Your task to perform on an android device: check data usage Image 0: 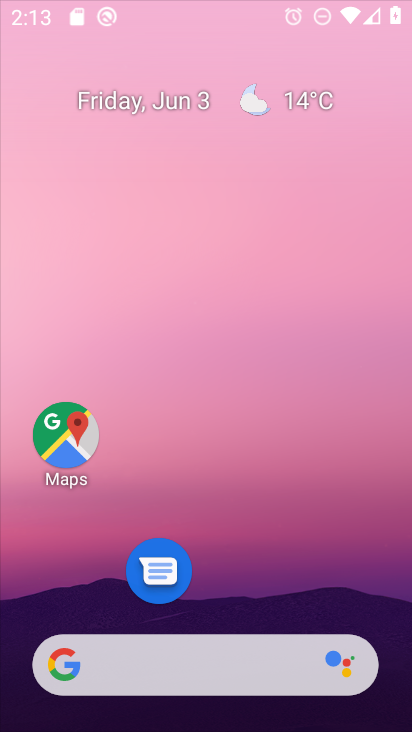
Step 0: drag from (311, 554) to (327, 74)
Your task to perform on an android device: check data usage Image 1: 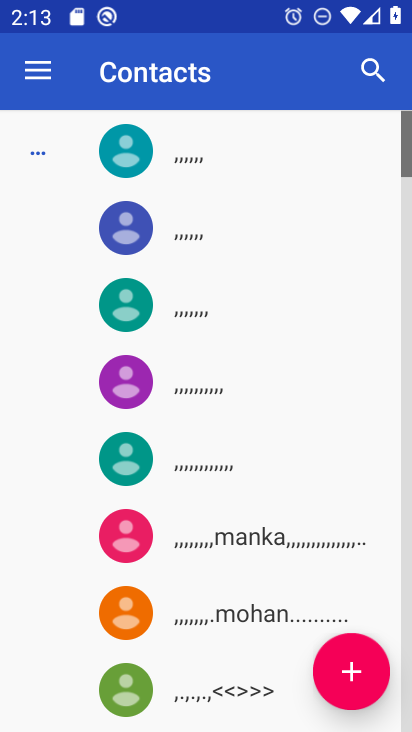
Step 1: press home button
Your task to perform on an android device: check data usage Image 2: 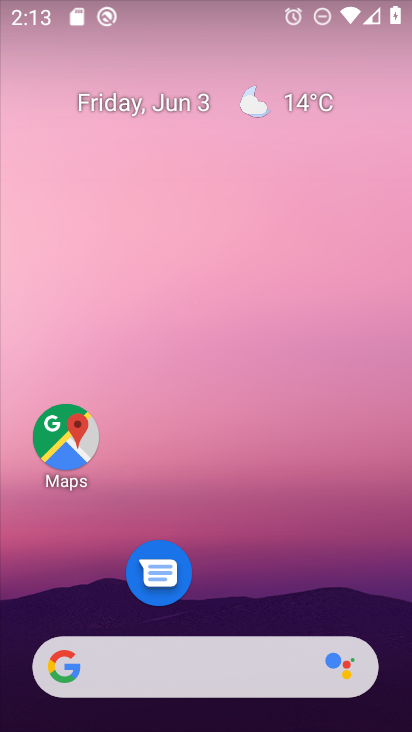
Step 2: drag from (324, 609) to (303, 80)
Your task to perform on an android device: check data usage Image 3: 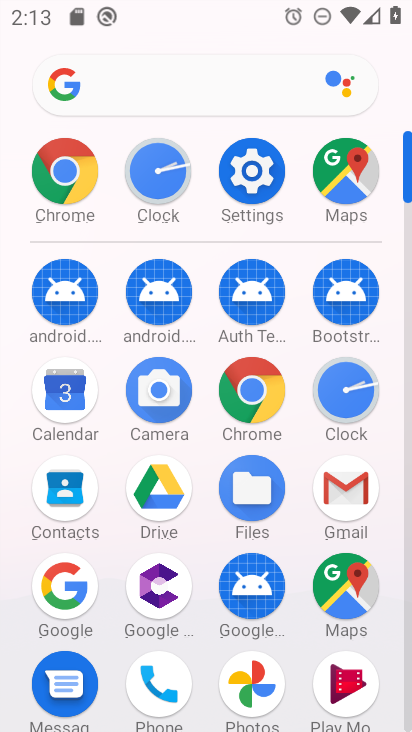
Step 3: click (269, 165)
Your task to perform on an android device: check data usage Image 4: 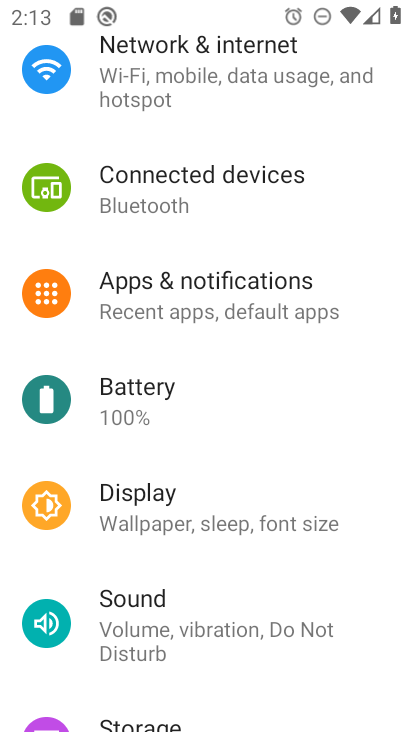
Step 4: click (283, 88)
Your task to perform on an android device: check data usage Image 5: 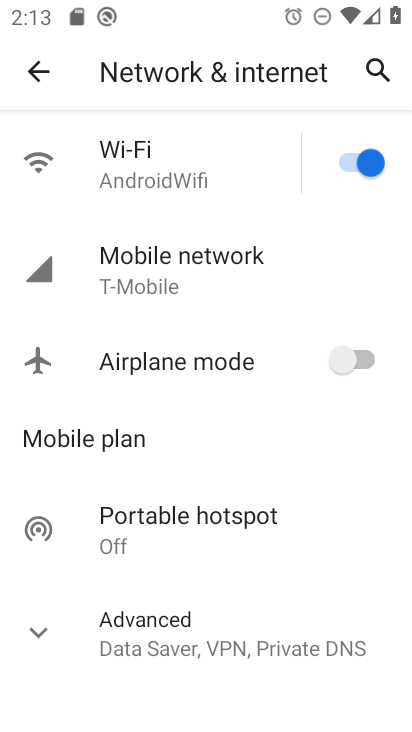
Step 5: click (195, 265)
Your task to perform on an android device: check data usage Image 6: 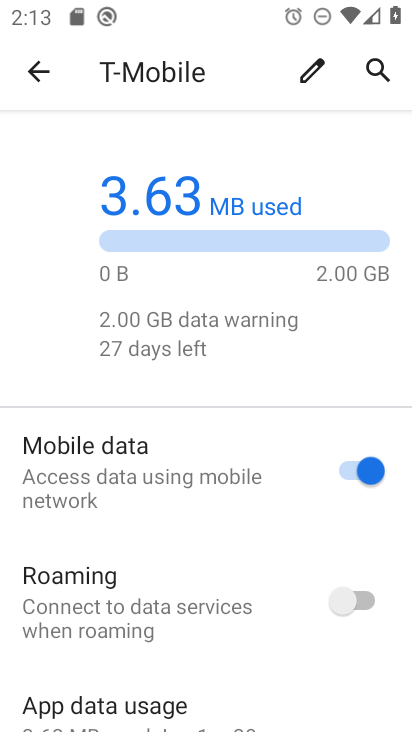
Step 6: click (142, 699)
Your task to perform on an android device: check data usage Image 7: 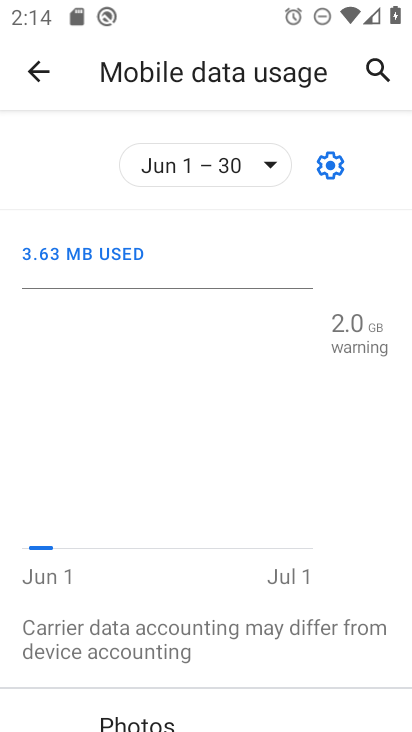
Step 7: task complete